Your task to perform on an android device: Open Yahoo.com Image 0: 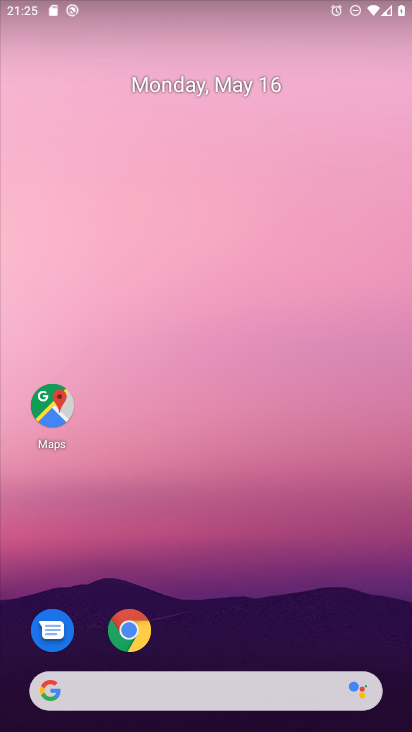
Step 0: click (127, 623)
Your task to perform on an android device: Open Yahoo.com Image 1: 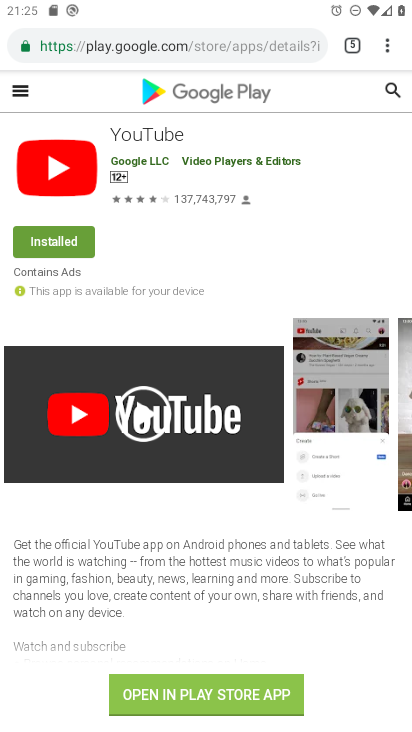
Step 1: click (353, 42)
Your task to perform on an android device: Open Yahoo.com Image 2: 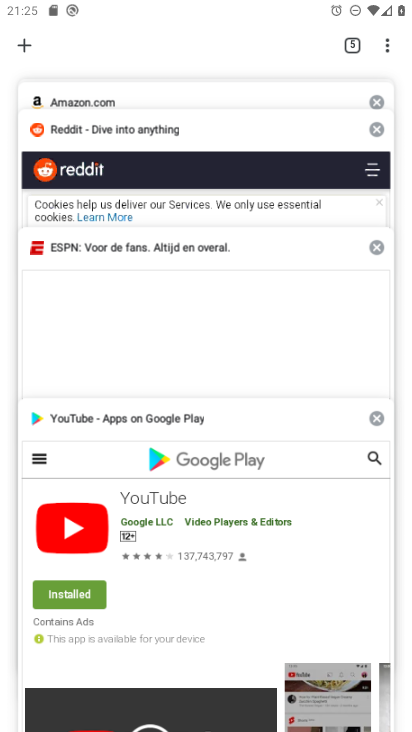
Step 2: drag from (207, 144) to (150, 668)
Your task to perform on an android device: Open Yahoo.com Image 3: 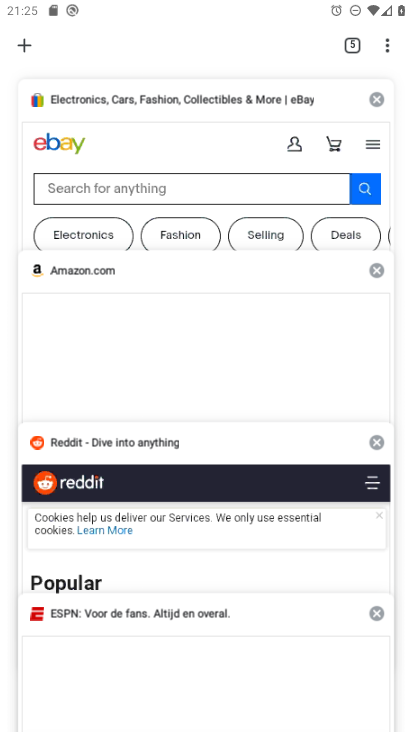
Step 3: drag from (233, 97) to (218, 542)
Your task to perform on an android device: Open Yahoo.com Image 4: 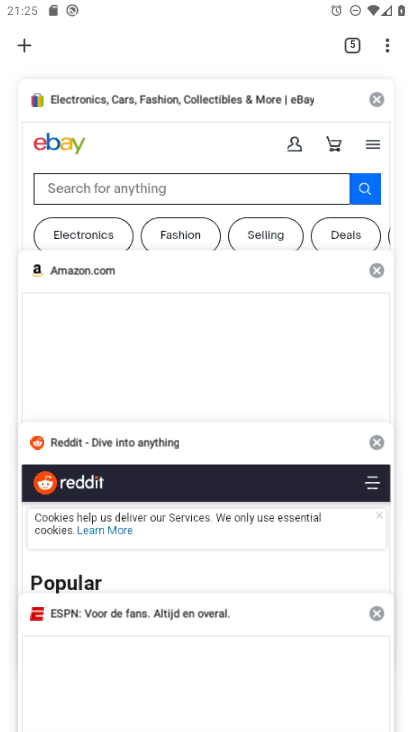
Step 4: click (15, 33)
Your task to perform on an android device: Open Yahoo.com Image 5: 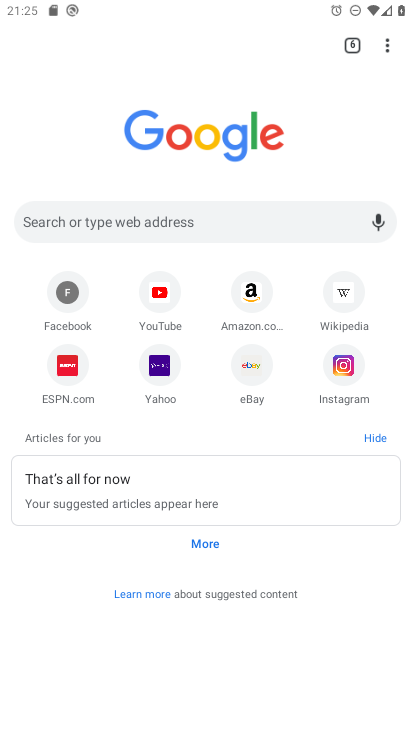
Step 5: click (146, 364)
Your task to perform on an android device: Open Yahoo.com Image 6: 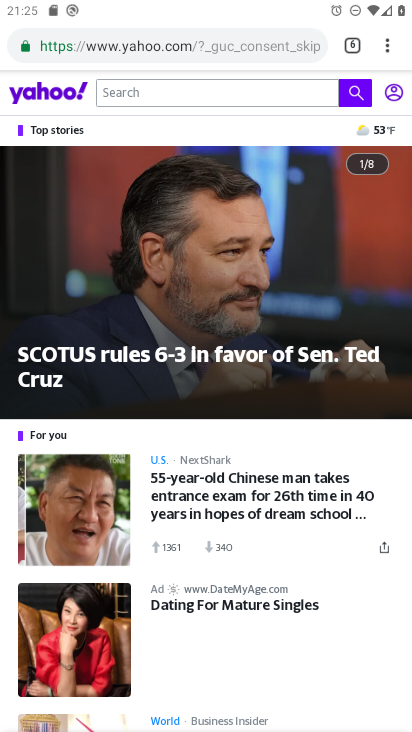
Step 6: task complete